Your task to perform on an android device: Go to Amazon Image 0: 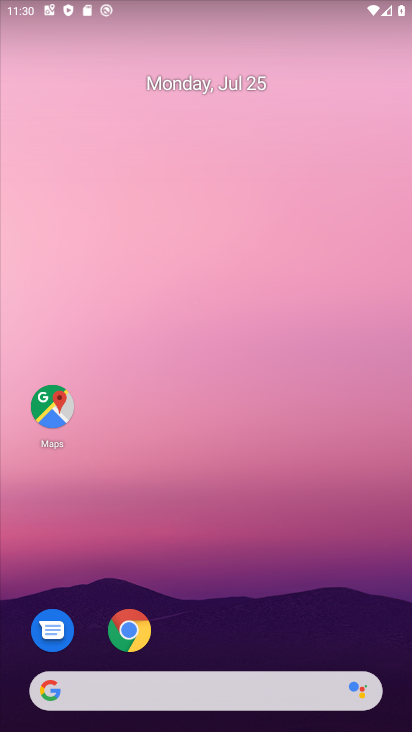
Step 0: press home button
Your task to perform on an android device: Go to Amazon Image 1: 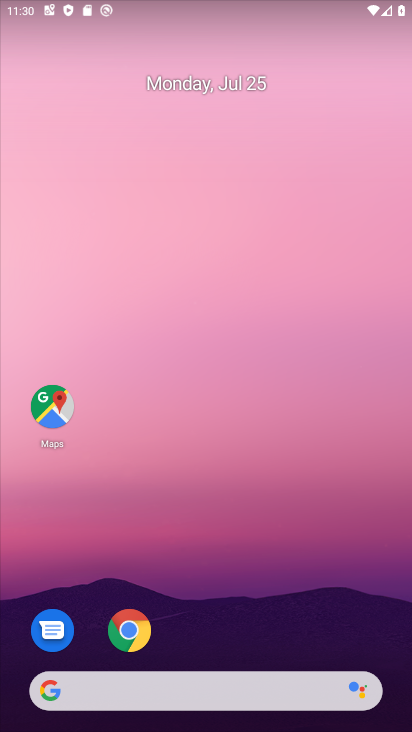
Step 1: drag from (359, 583) to (366, 159)
Your task to perform on an android device: Go to Amazon Image 2: 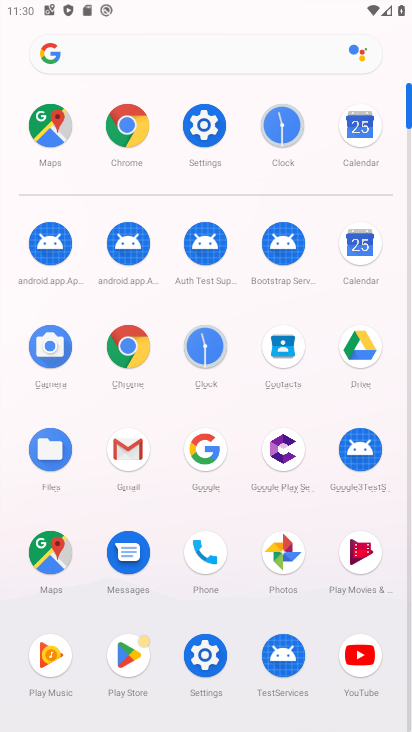
Step 2: click (135, 348)
Your task to perform on an android device: Go to Amazon Image 3: 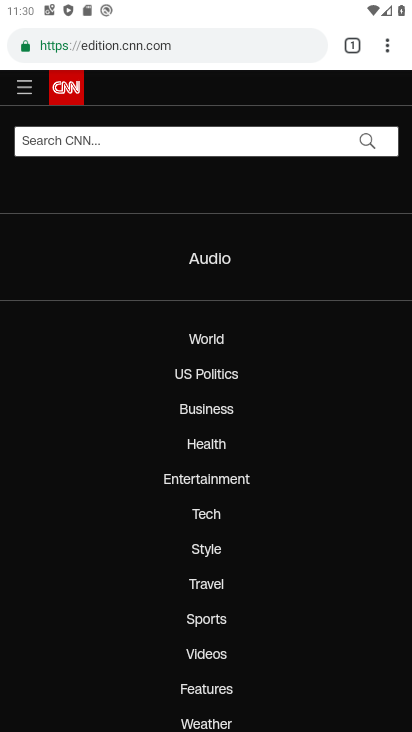
Step 3: click (214, 48)
Your task to perform on an android device: Go to Amazon Image 4: 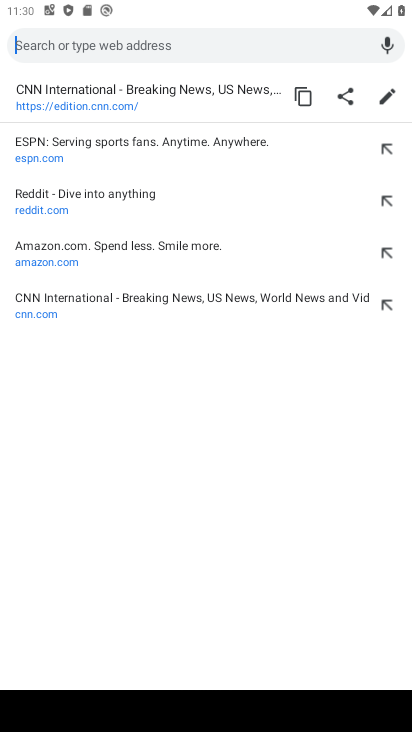
Step 4: type "amazon"
Your task to perform on an android device: Go to Amazon Image 5: 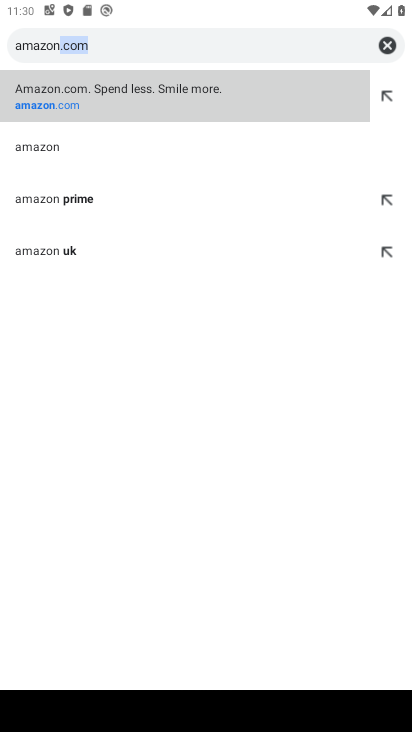
Step 5: click (301, 95)
Your task to perform on an android device: Go to Amazon Image 6: 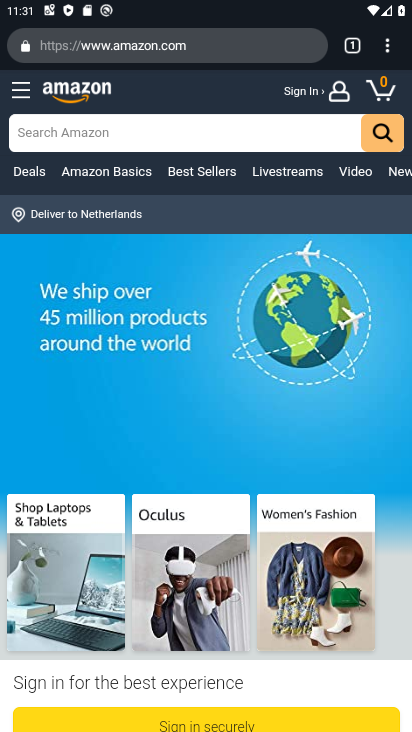
Step 6: task complete